Your task to perform on an android device: Search for seafood restaurants on Google Maps Image 0: 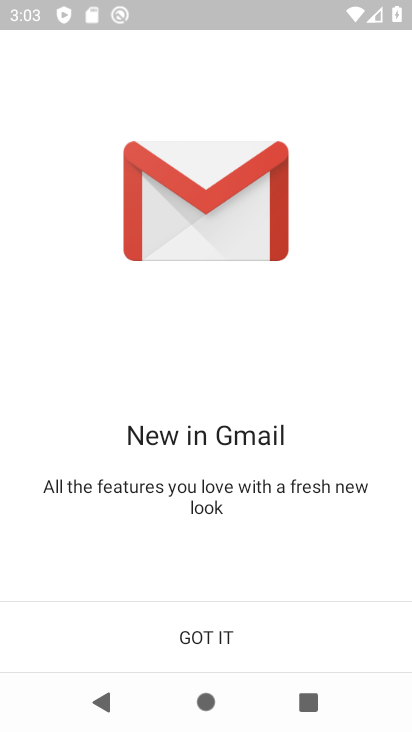
Step 0: press back button
Your task to perform on an android device: Search for seafood restaurants on Google Maps Image 1: 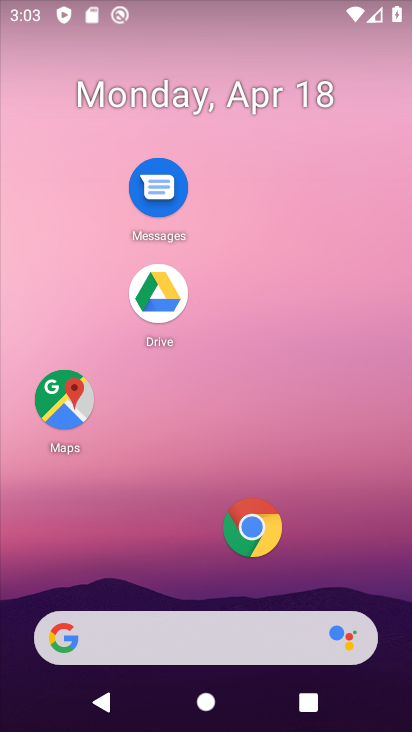
Step 1: click (66, 399)
Your task to perform on an android device: Search for seafood restaurants on Google Maps Image 2: 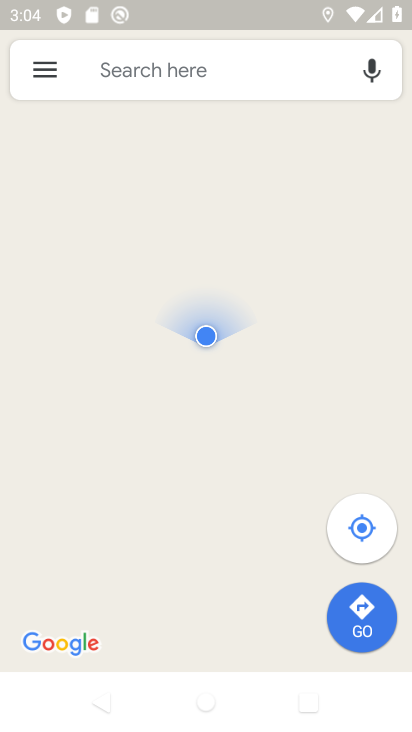
Step 2: click (177, 76)
Your task to perform on an android device: Search for seafood restaurants on Google Maps Image 3: 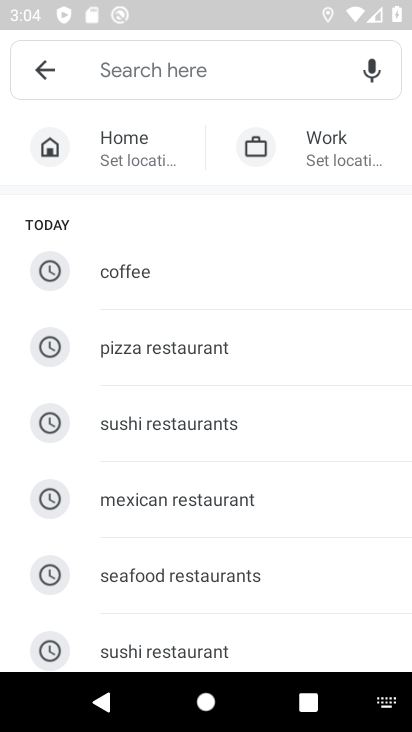
Step 3: type "seafood  restaurants"
Your task to perform on an android device: Search for seafood restaurants on Google Maps Image 4: 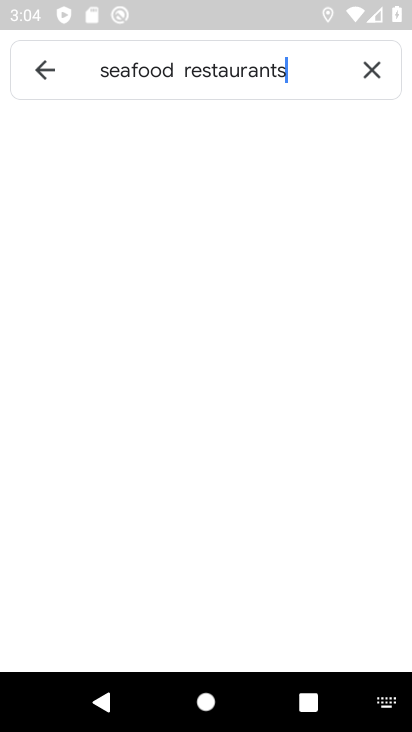
Step 4: type ""
Your task to perform on an android device: Search for seafood restaurants on Google Maps Image 5: 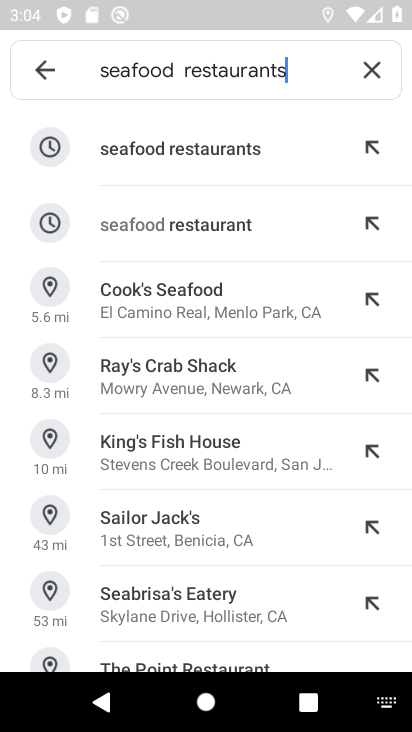
Step 5: click (168, 145)
Your task to perform on an android device: Search for seafood restaurants on Google Maps Image 6: 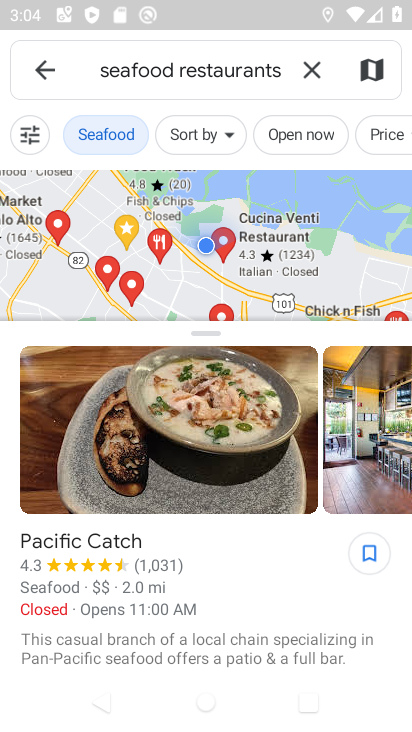
Step 6: task complete